Your task to perform on an android device: Open Yahoo.com Image 0: 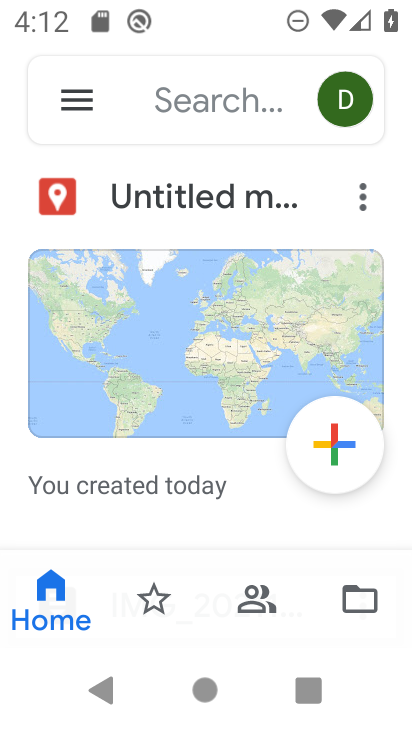
Step 0: press home button
Your task to perform on an android device: Open Yahoo.com Image 1: 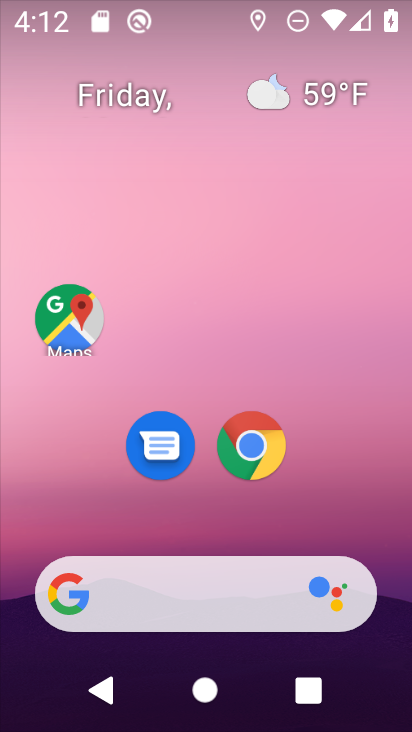
Step 1: click (247, 446)
Your task to perform on an android device: Open Yahoo.com Image 2: 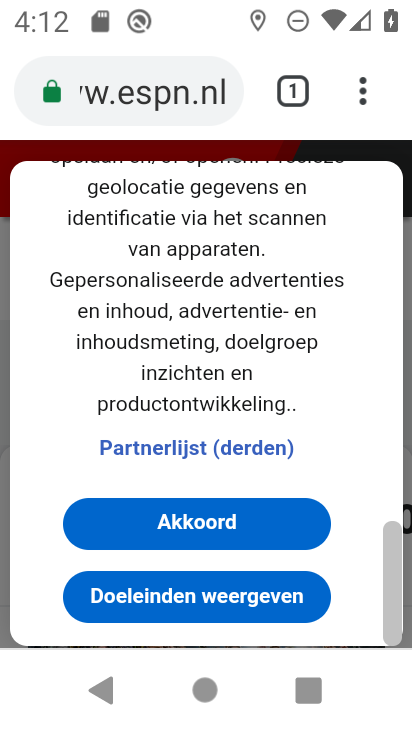
Step 2: click (123, 93)
Your task to perform on an android device: Open Yahoo.com Image 3: 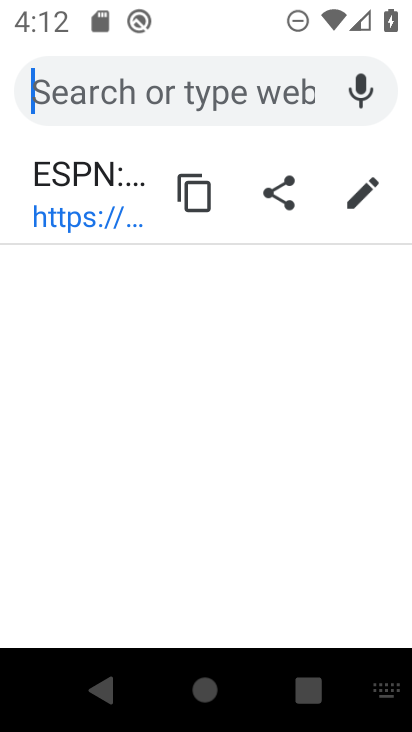
Step 3: type "yahoo.com"
Your task to perform on an android device: Open Yahoo.com Image 4: 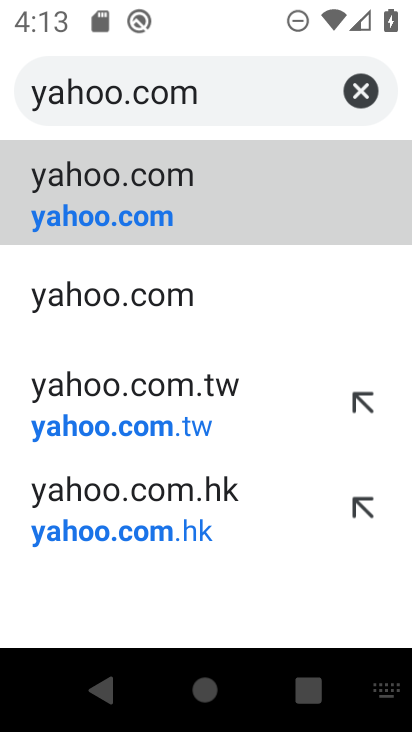
Step 4: click (48, 184)
Your task to perform on an android device: Open Yahoo.com Image 5: 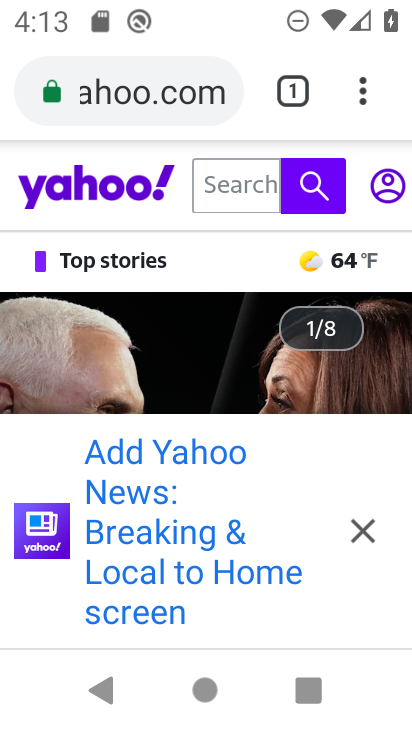
Step 5: click (358, 530)
Your task to perform on an android device: Open Yahoo.com Image 6: 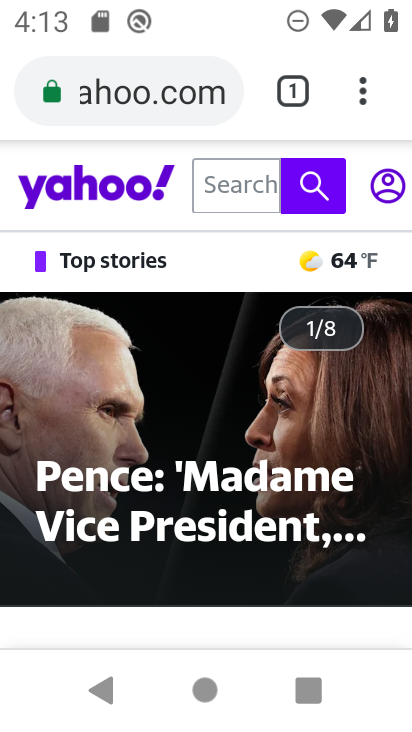
Step 6: task complete